Your task to perform on an android device: Open eBay Image 0: 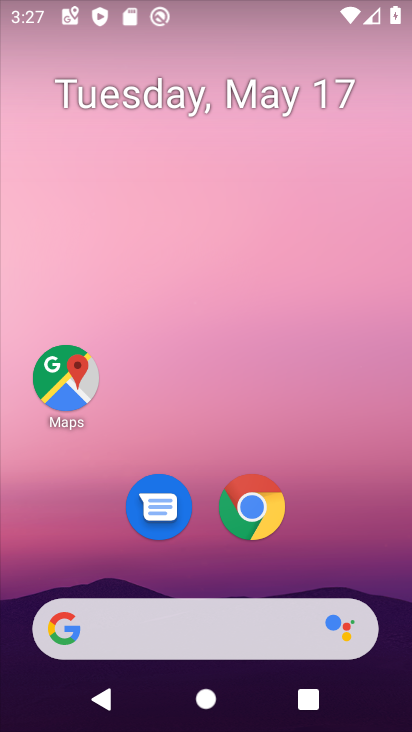
Step 0: click (252, 500)
Your task to perform on an android device: Open eBay Image 1: 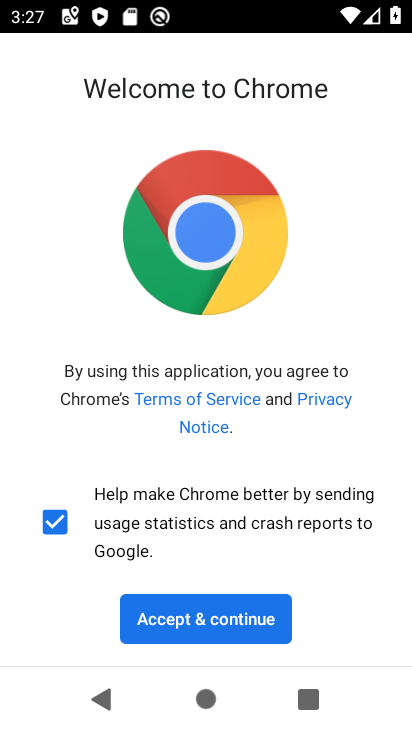
Step 1: click (255, 610)
Your task to perform on an android device: Open eBay Image 2: 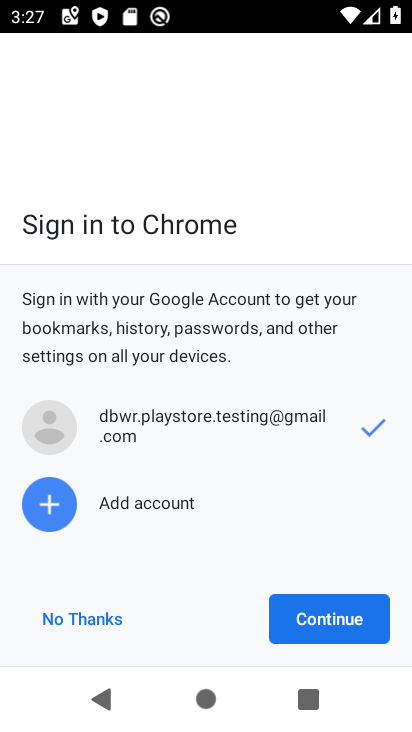
Step 2: click (317, 602)
Your task to perform on an android device: Open eBay Image 3: 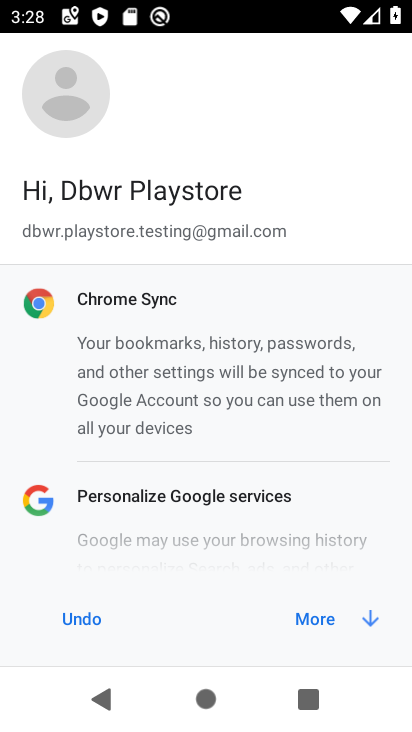
Step 3: click (318, 609)
Your task to perform on an android device: Open eBay Image 4: 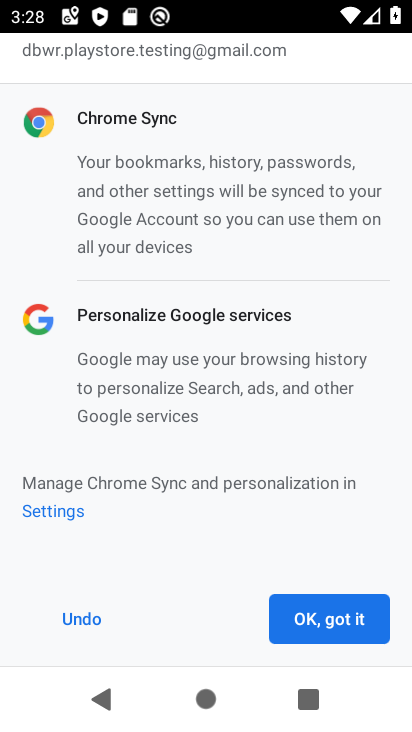
Step 4: click (319, 607)
Your task to perform on an android device: Open eBay Image 5: 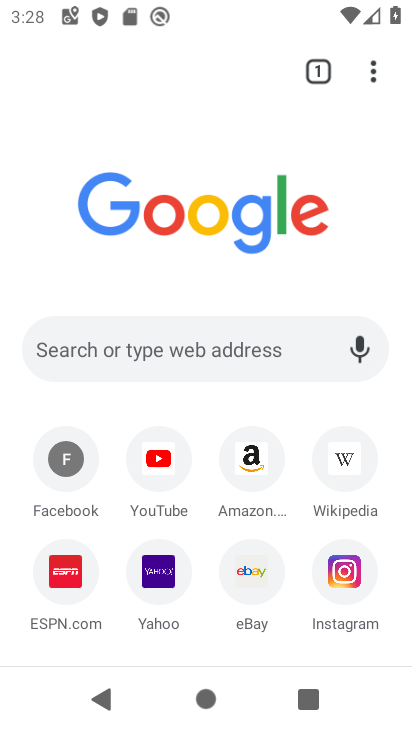
Step 5: click (251, 569)
Your task to perform on an android device: Open eBay Image 6: 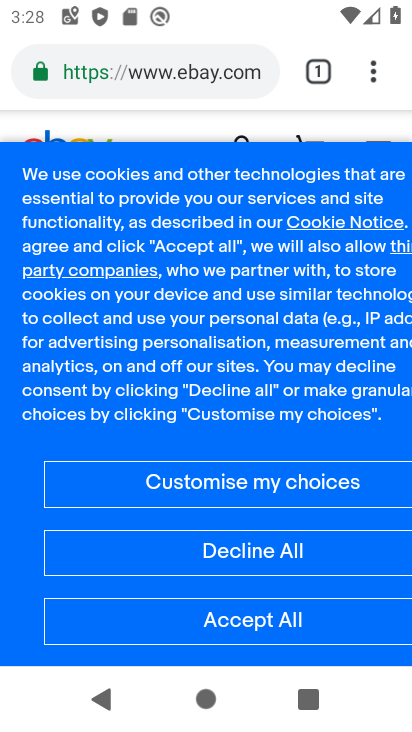
Step 6: task complete